Your task to perform on an android device: add a contact Image 0: 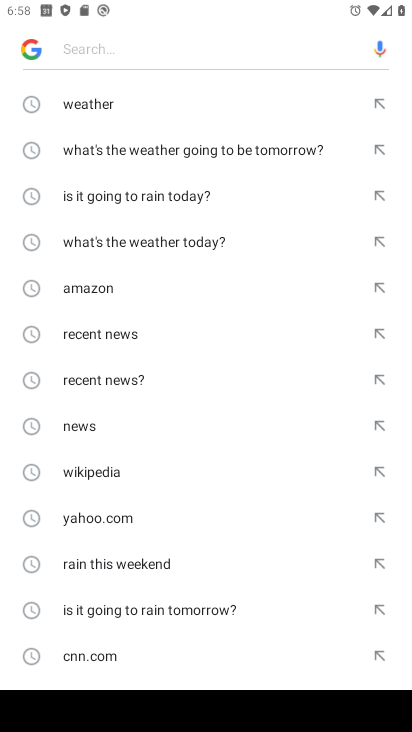
Step 0: press home button
Your task to perform on an android device: add a contact Image 1: 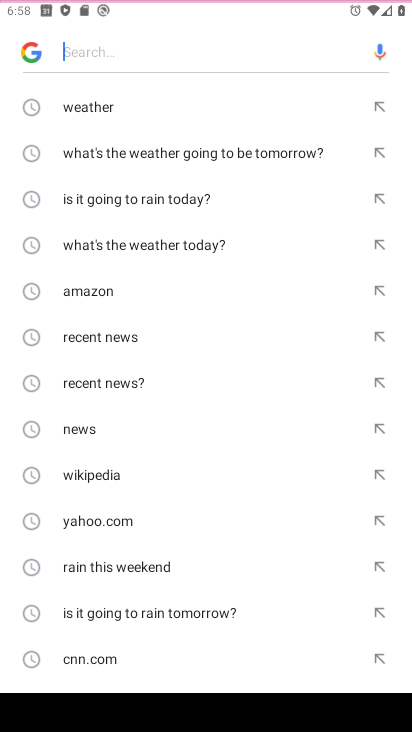
Step 1: drag from (331, 611) to (275, 110)
Your task to perform on an android device: add a contact Image 2: 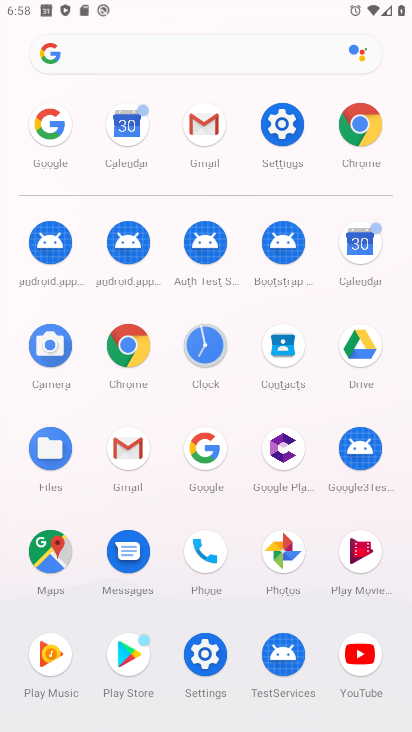
Step 2: click (293, 357)
Your task to perform on an android device: add a contact Image 3: 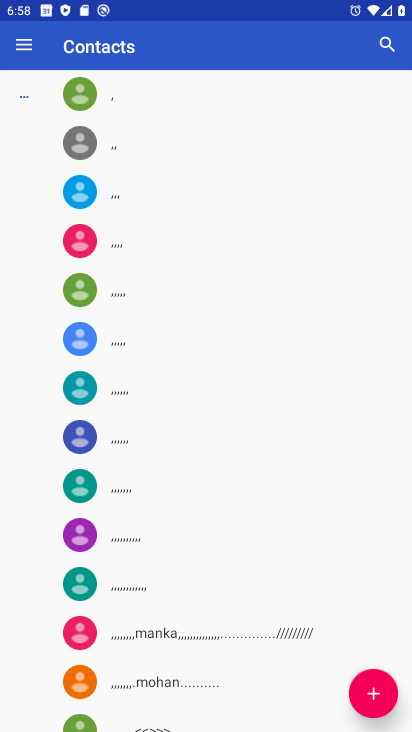
Step 3: click (369, 696)
Your task to perform on an android device: add a contact Image 4: 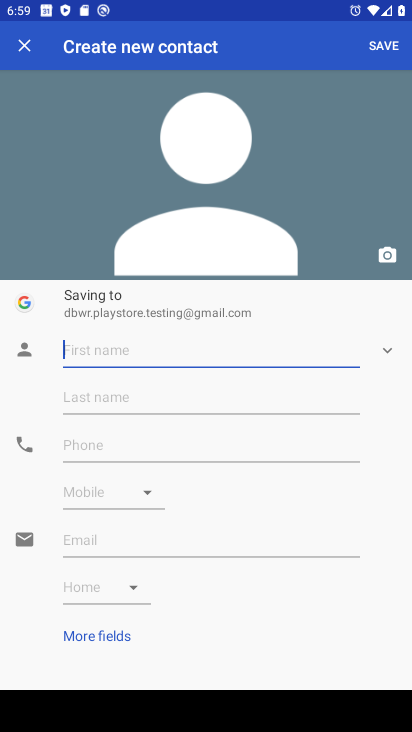
Step 4: type "kabir"
Your task to perform on an android device: add a contact Image 5: 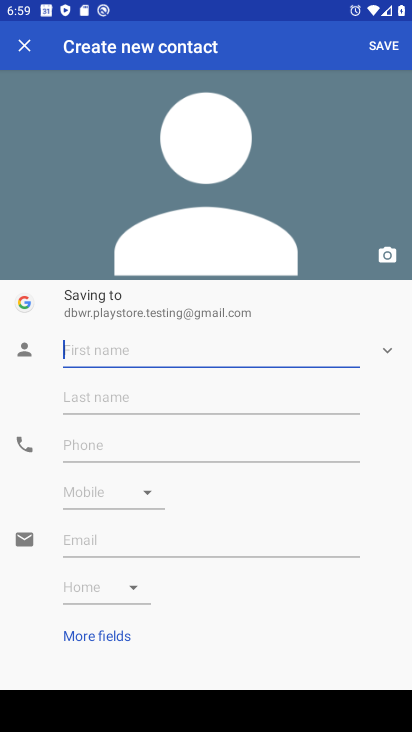
Step 5: click (374, 40)
Your task to perform on an android device: add a contact Image 6: 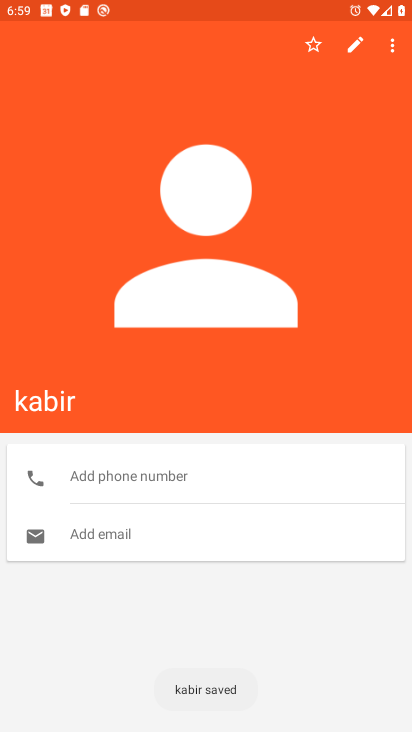
Step 6: task complete